Your task to perform on an android device: find which apps use the phone's location Image 0: 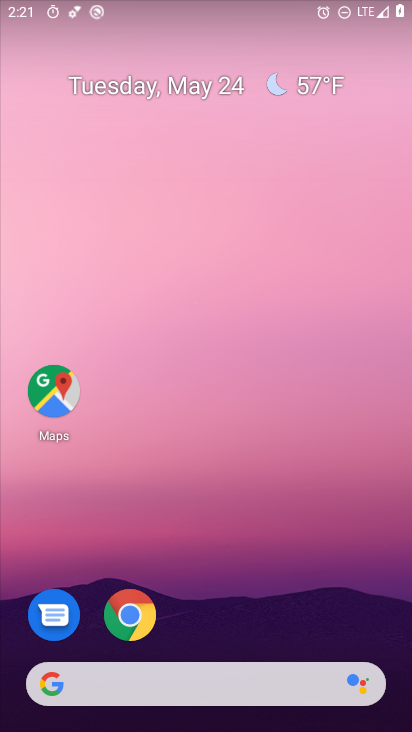
Step 0: drag from (303, 659) to (346, 177)
Your task to perform on an android device: find which apps use the phone's location Image 1: 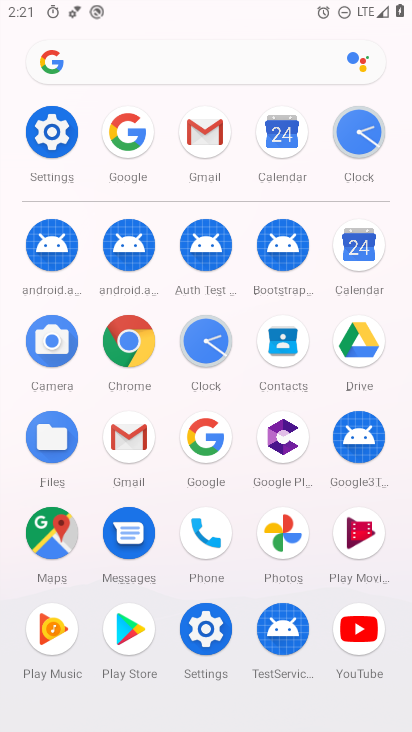
Step 1: click (213, 630)
Your task to perform on an android device: find which apps use the phone's location Image 2: 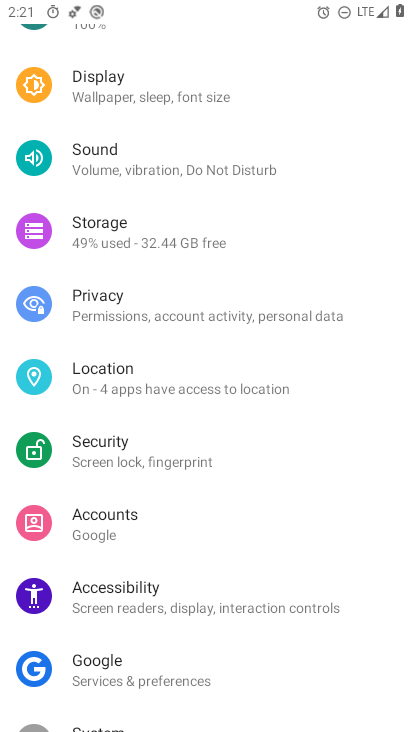
Step 2: click (129, 378)
Your task to perform on an android device: find which apps use the phone's location Image 3: 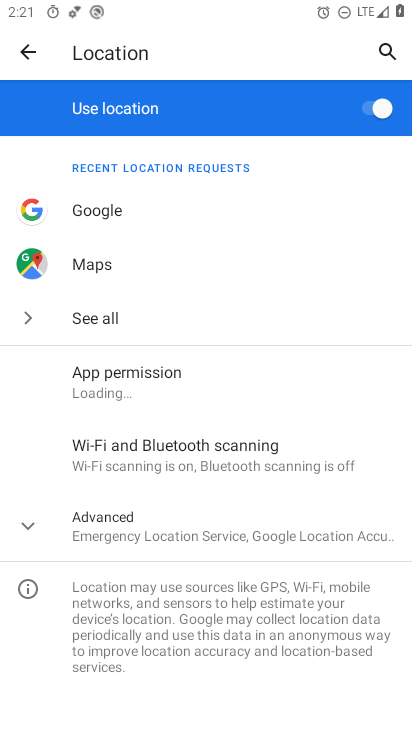
Step 3: click (146, 392)
Your task to perform on an android device: find which apps use the phone's location Image 4: 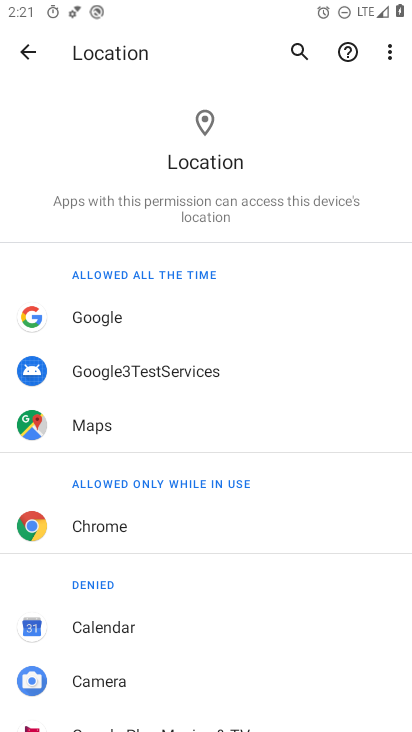
Step 4: task complete